Your task to perform on an android device: Open Yahoo.com Image 0: 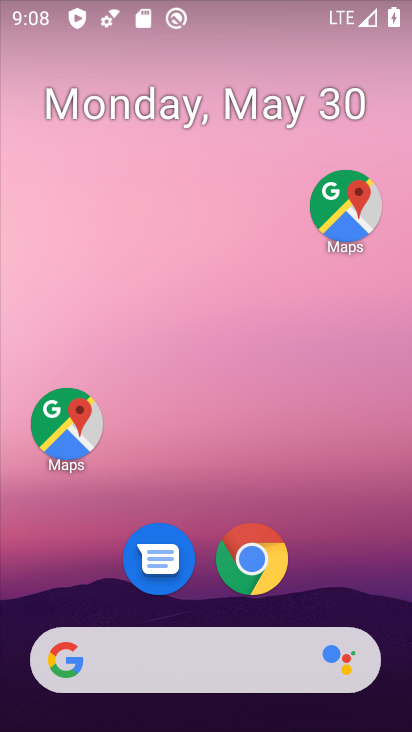
Step 0: click (241, 563)
Your task to perform on an android device: Open Yahoo.com Image 1: 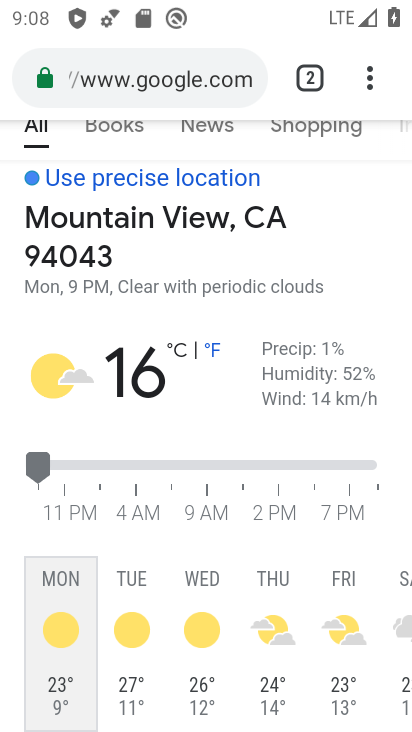
Step 1: click (193, 74)
Your task to perform on an android device: Open Yahoo.com Image 2: 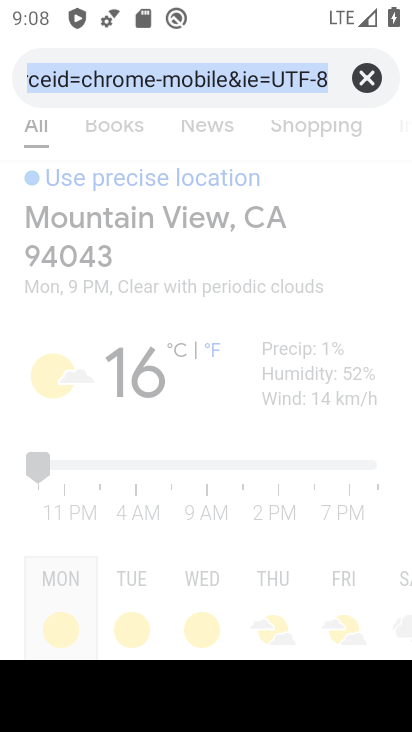
Step 2: type "yahoo.com"
Your task to perform on an android device: Open Yahoo.com Image 3: 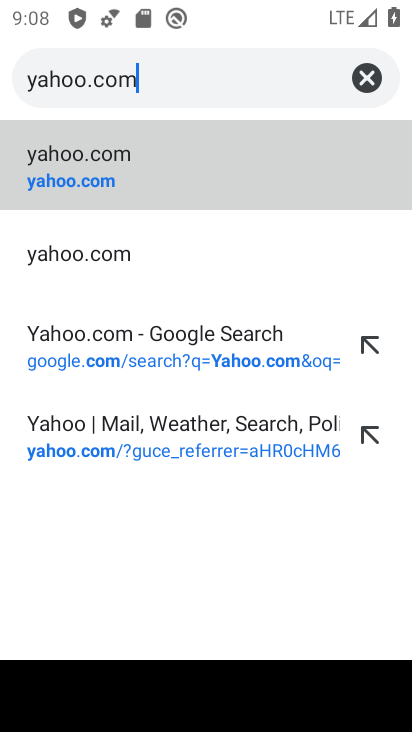
Step 3: click (68, 183)
Your task to perform on an android device: Open Yahoo.com Image 4: 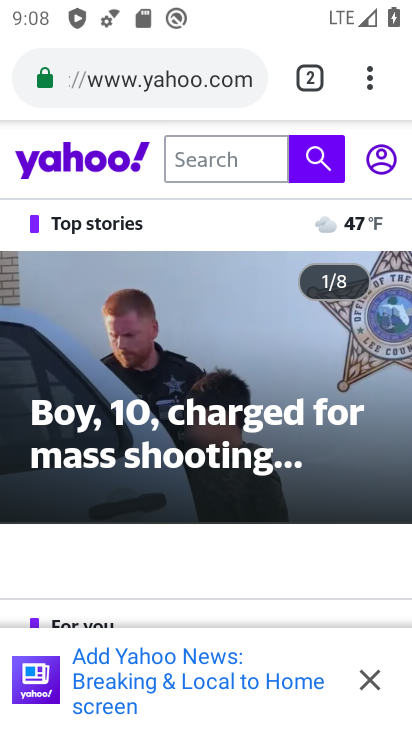
Step 4: task complete